Your task to perform on an android device: open sync settings in chrome Image 0: 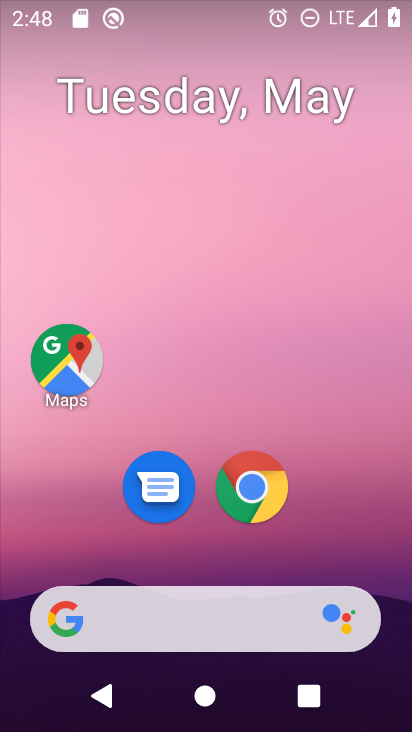
Step 0: click (233, 476)
Your task to perform on an android device: open sync settings in chrome Image 1: 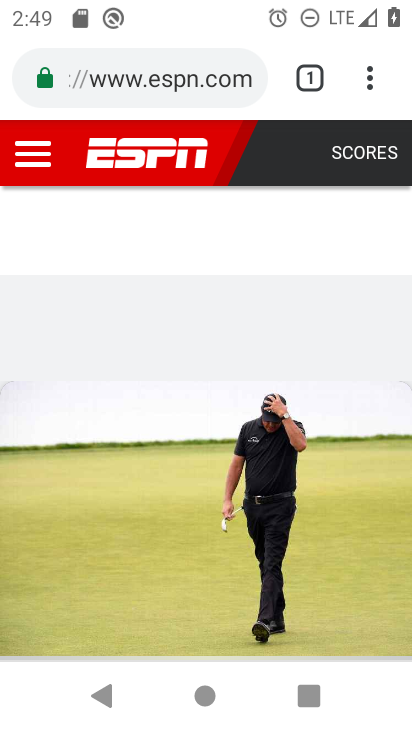
Step 1: click (367, 88)
Your task to perform on an android device: open sync settings in chrome Image 2: 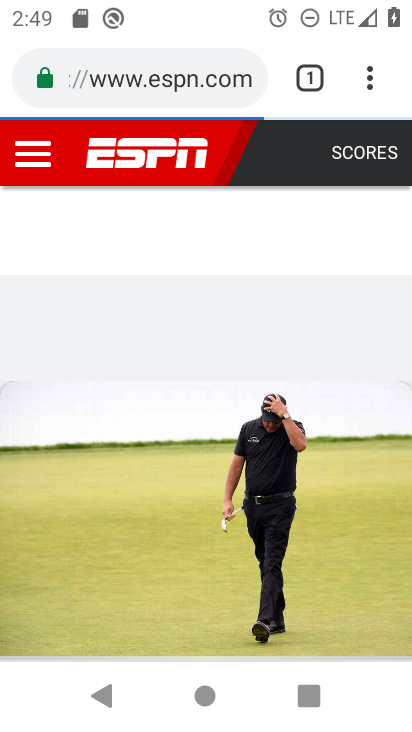
Step 2: click (363, 91)
Your task to perform on an android device: open sync settings in chrome Image 3: 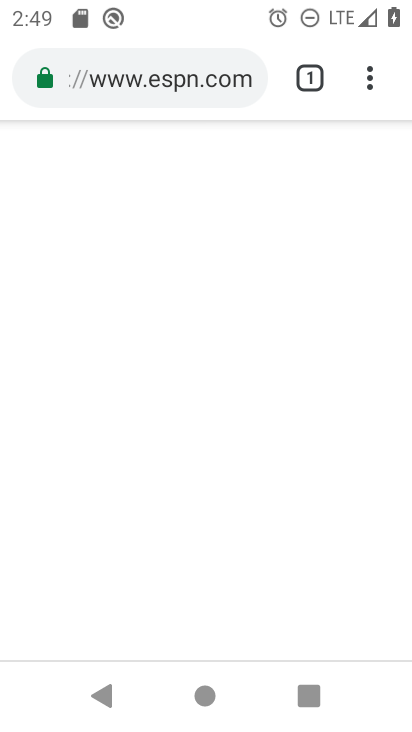
Step 3: click (364, 70)
Your task to perform on an android device: open sync settings in chrome Image 4: 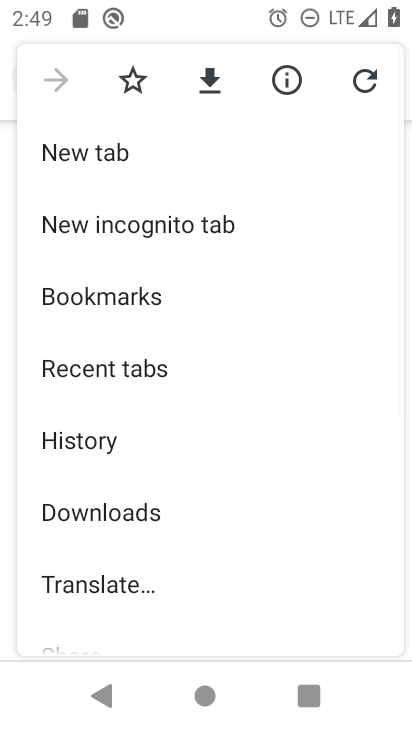
Step 4: drag from (80, 518) to (277, 122)
Your task to perform on an android device: open sync settings in chrome Image 5: 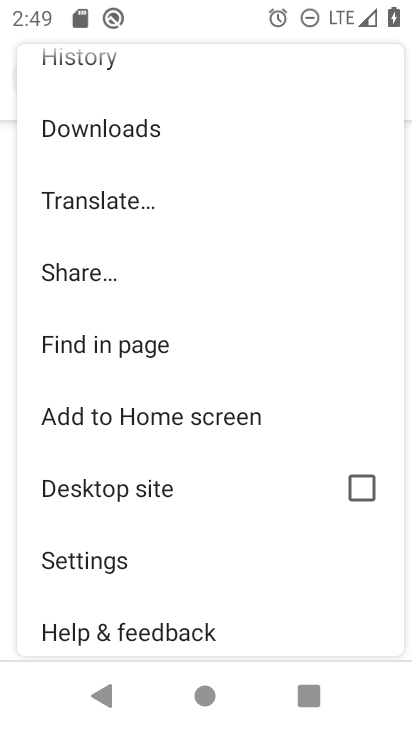
Step 5: click (89, 580)
Your task to perform on an android device: open sync settings in chrome Image 6: 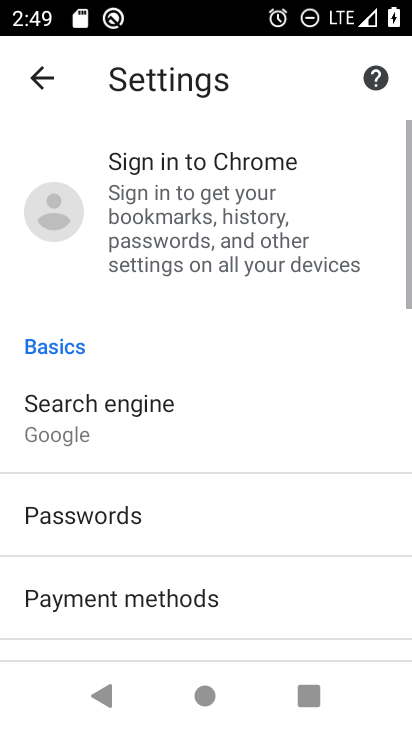
Step 6: drag from (91, 585) to (234, 193)
Your task to perform on an android device: open sync settings in chrome Image 7: 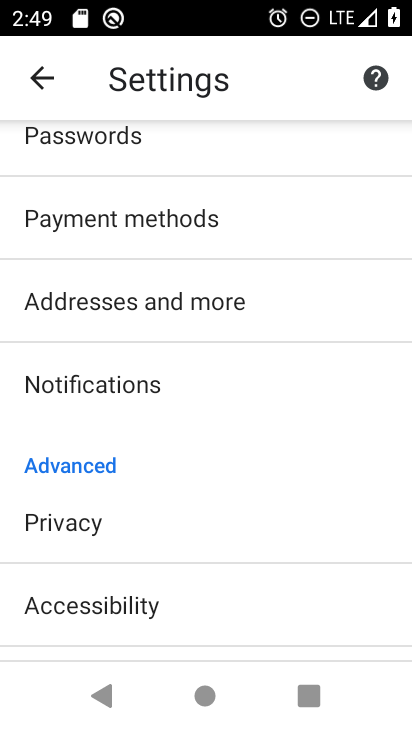
Step 7: drag from (103, 530) to (190, 220)
Your task to perform on an android device: open sync settings in chrome Image 8: 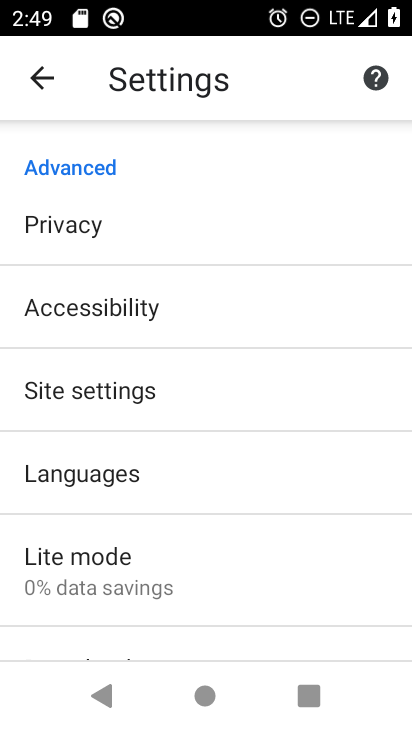
Step 8: click (161, 390)
Your task to perform on an android device: open sync settings in chrome Image 9: 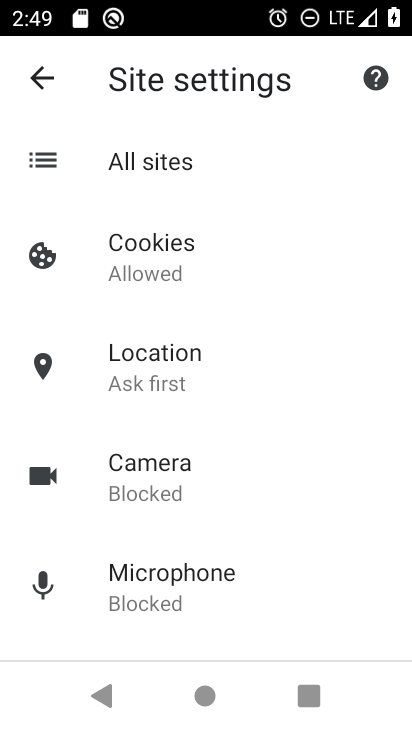
Step 9: drag from (125, 633) to (312, 304)
Your task to perform on an android device: open sync settings in chrome Image 10: 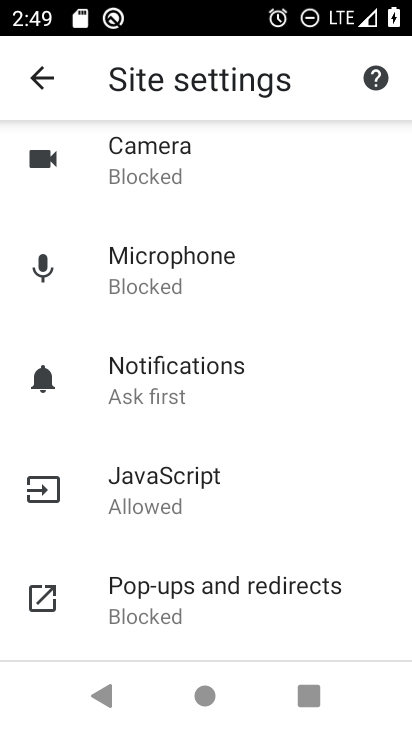
Step 10: drag from (170, 636) to (257, 285)
Your task to perform on an android device: open sync settings in chrome Image 11: 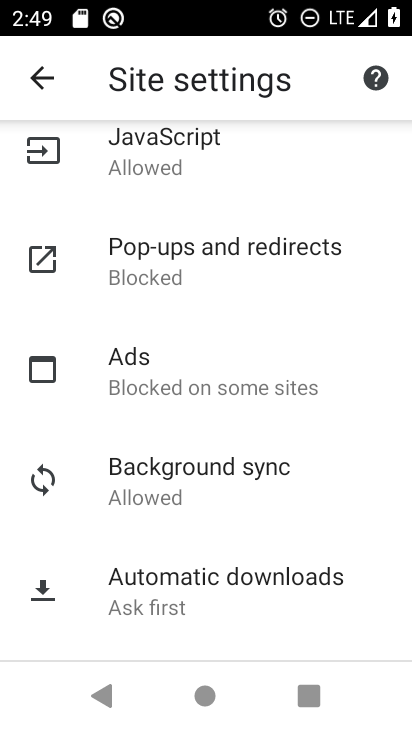
Step 11: click (150, 477)
Your task to perform on an android device: open sync settings in chrome Image 12: 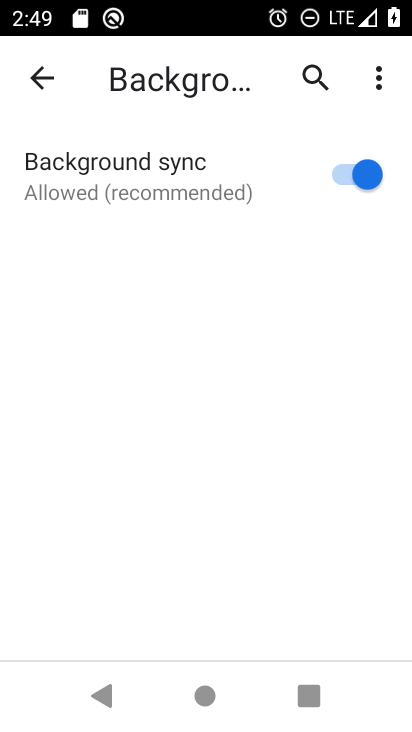
Step 12: task complete